Your task to perform on an android device: Open Google Maps Image 0: 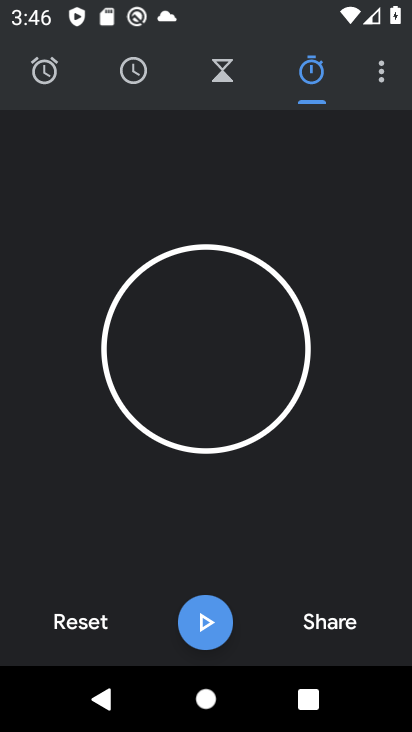
Step 0: press back button
Your task to perform on an android device: Open Google Maps Image 1: 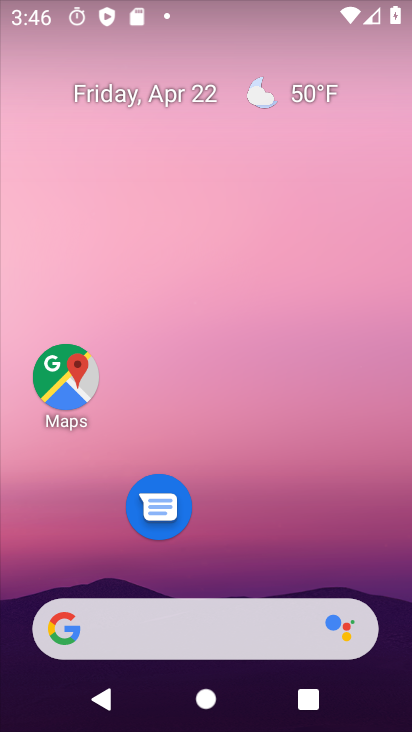
Step 1: click (64, 373)
Your task to perform on an android device: Open Google Maps Image 2: 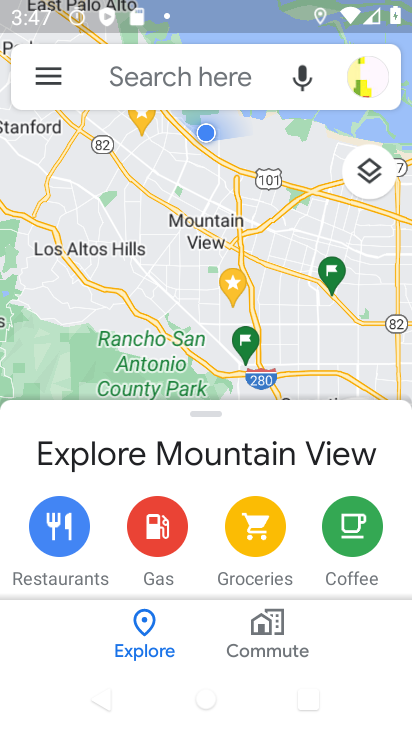
Step 2: task complete